Your task to perform on an android device: change the clock display to show seconds Image 0: 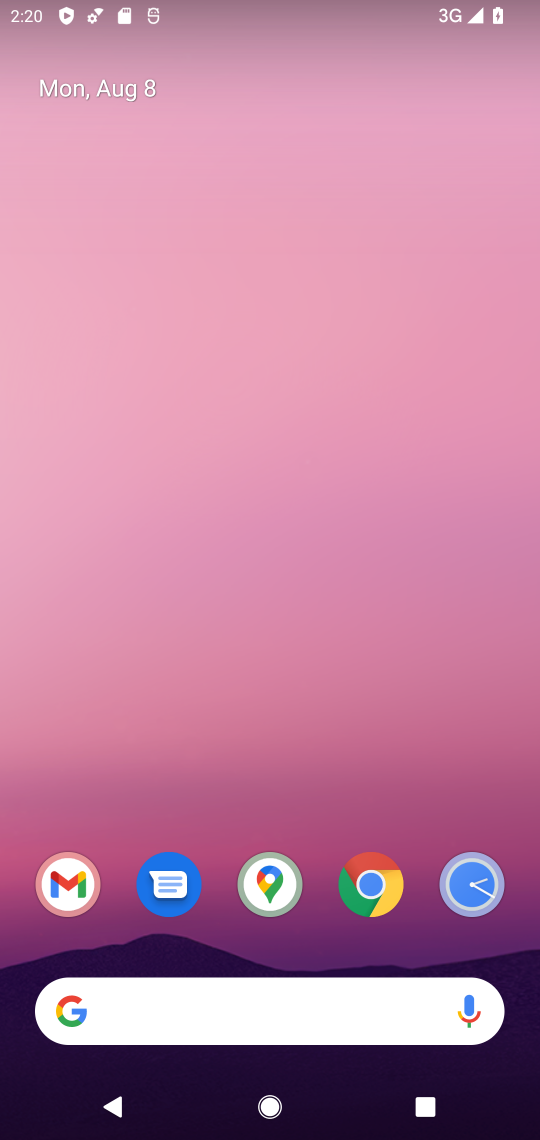
Step 0: click (471, 888)
Your task to perform on an android device: change the clock display to show seconds Image 1: 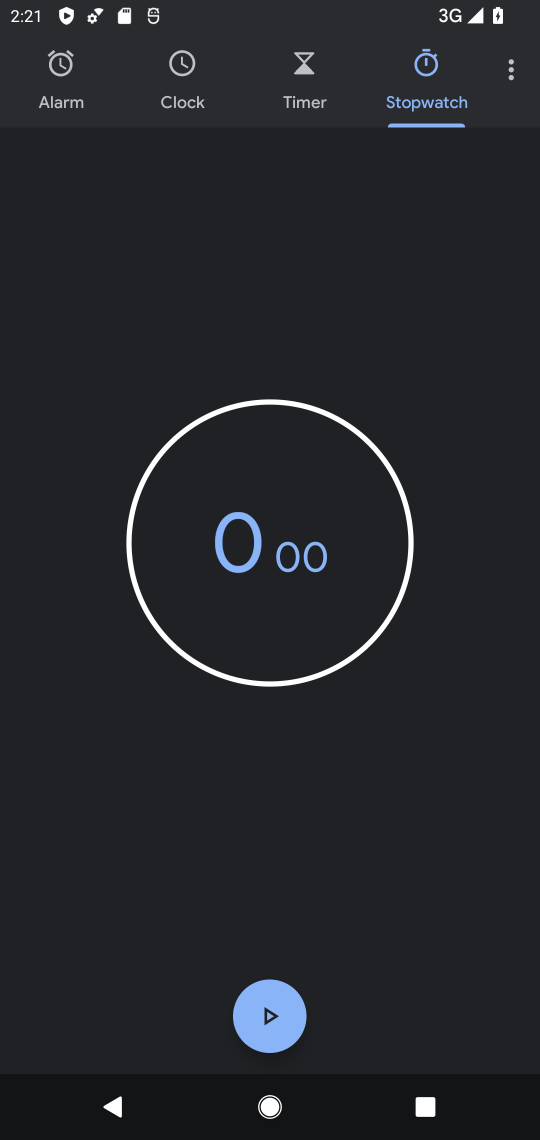
Step 1: click (517, 72)
Your task to perform on an android device: change the clock display to show seconds Image 2: 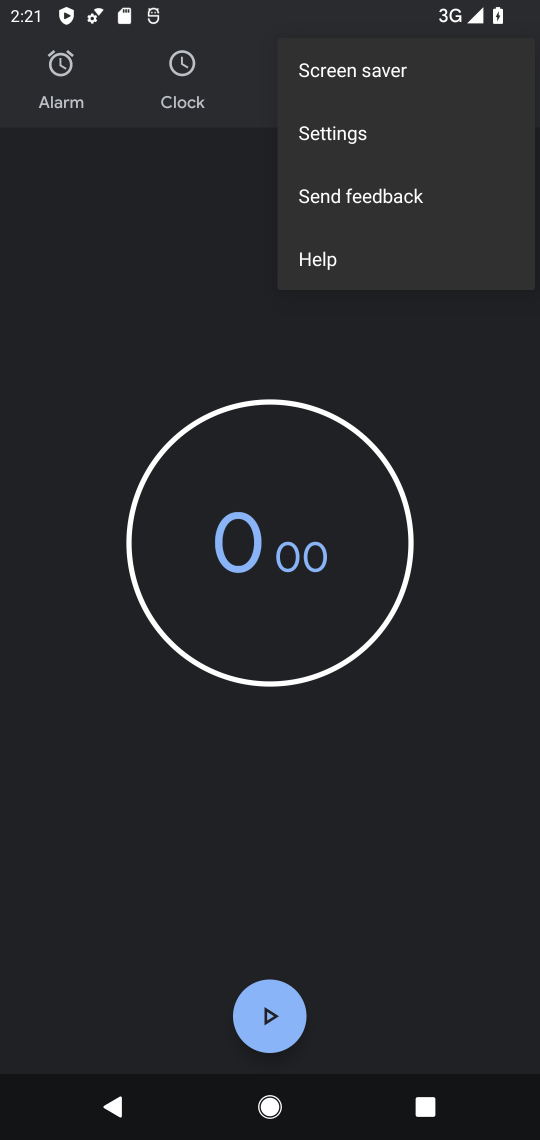
Step 2: click (343, 132)
Your task to perform on an android device: change the clock display to show seconds Image 3: 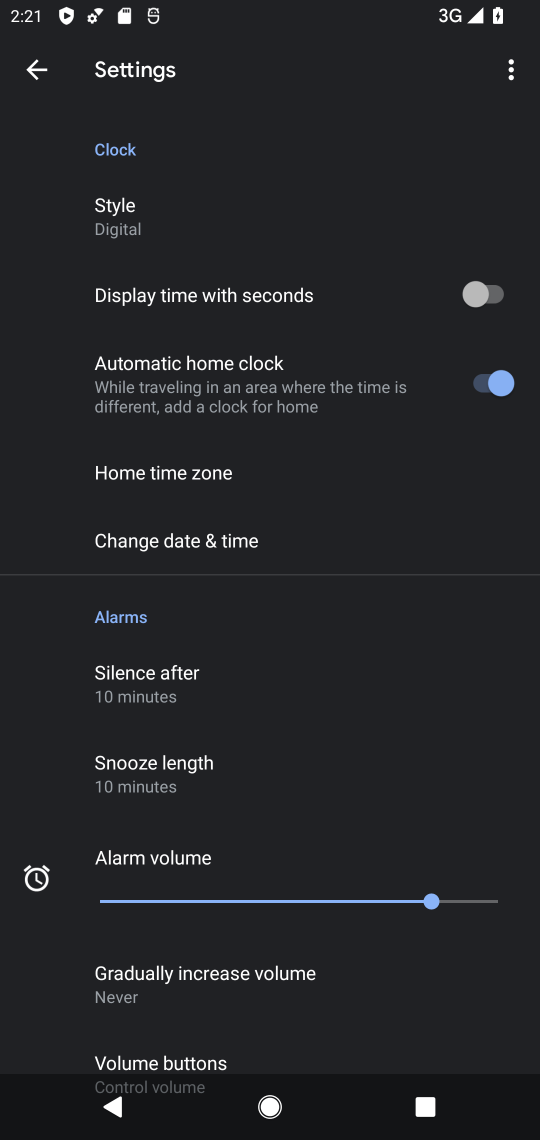
Step 3: click (477, 291)
Your task to perform on an android device: change the clock display to show seconds Image 4: 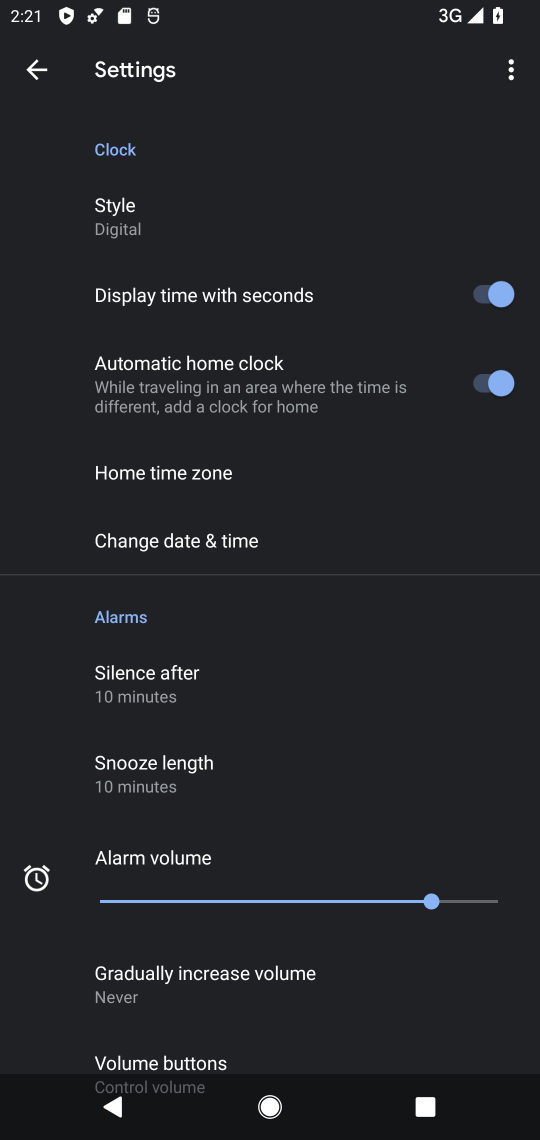
Step 4: task complete